Your task to perform on an android device: show emergency info Image 0: 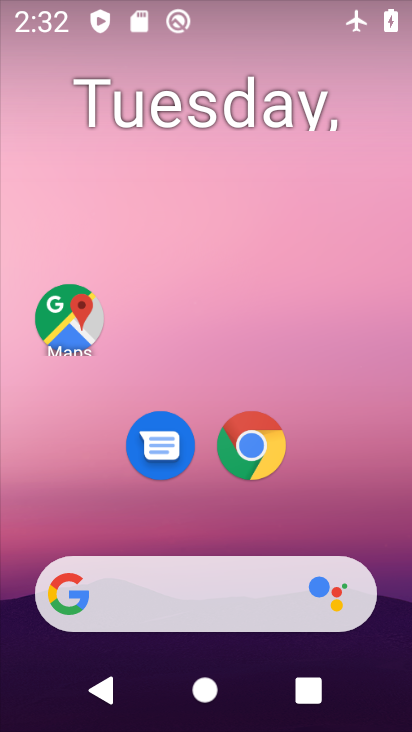
Step 0: drag from (330, 476) to (209, 153)
Your task to perform on an android device: show emergency info Image 1: 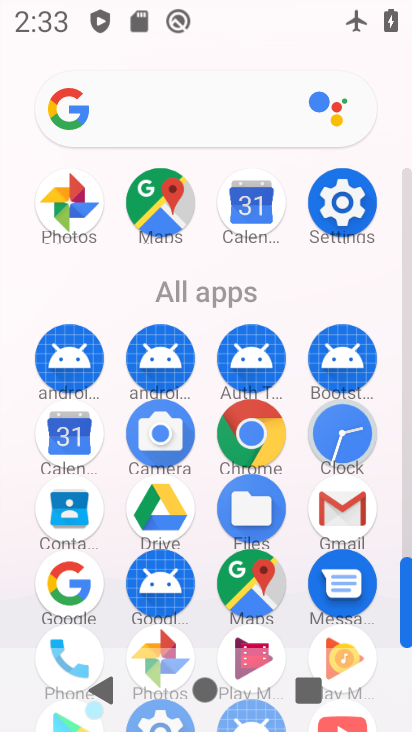
Step 1: click (342, 218)
Your task to perform on an android device: show emergency info Image 2: 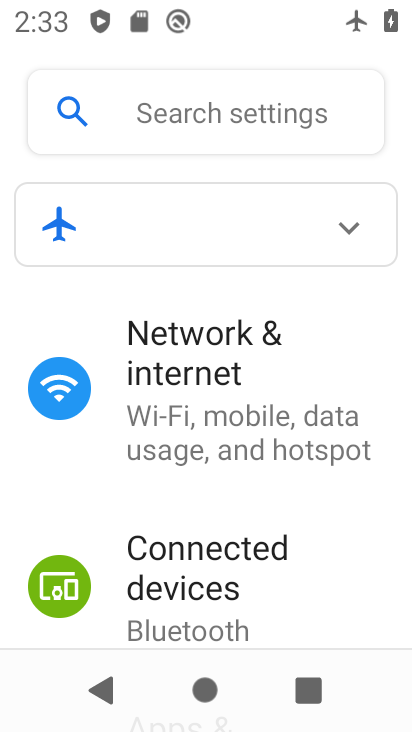
Step 2: drag from (248, 610) to (216, 238)
Your task to perform on an android device: show emergency info Image 3: 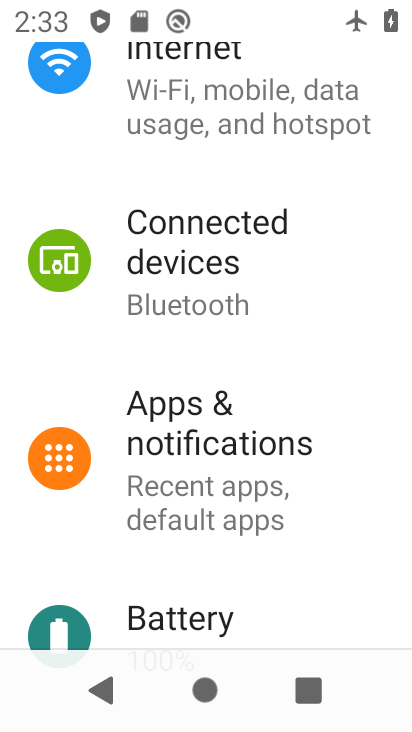
Step 3: drag from (281, 605) to (290, 187)
Your task to perform on an android device: show emergency info Image 4: 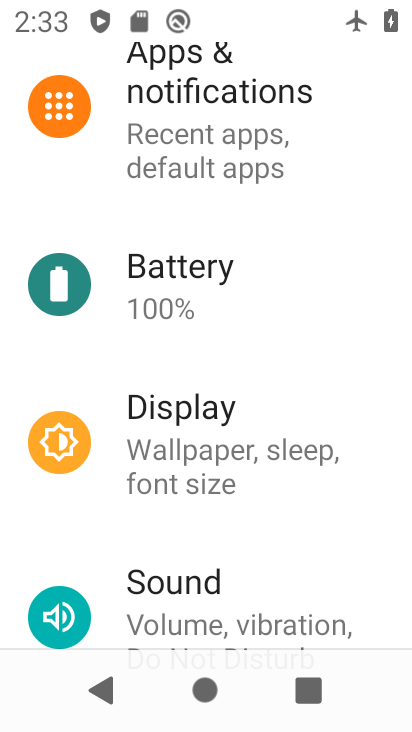
Step 4: drag from (282, 613) to (264, 193)
Your task to perform on an android device: show emergency info Image 5: 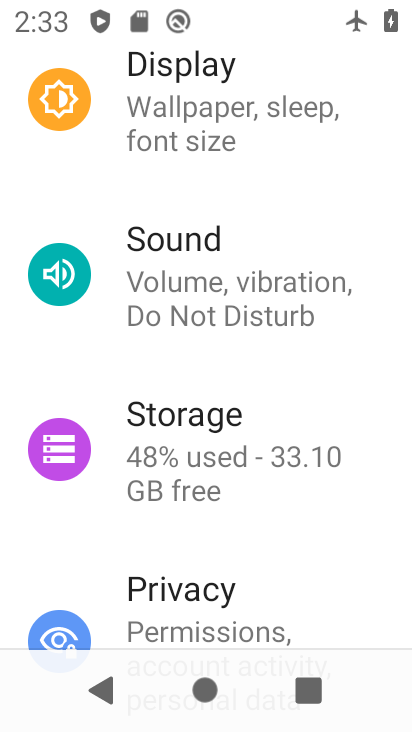
Step 5: drag from (264, 574) to (245, 287)
Your task to perform on an android device: show emergency info Image 6: 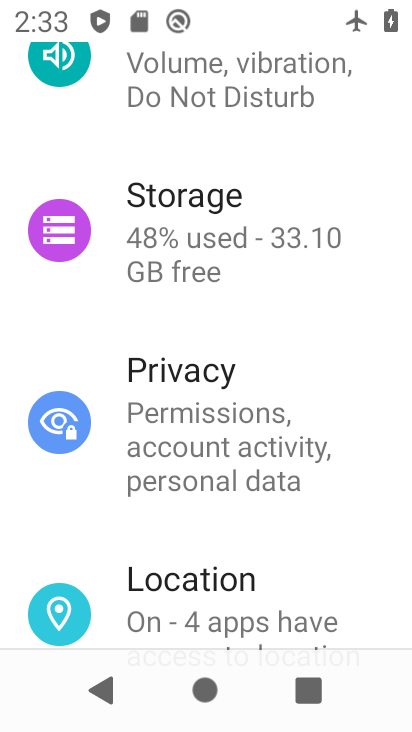
Step 6: drag from (225, 613) to (255, 102)
Your task to perform on an android device: show emergency info Image 7: 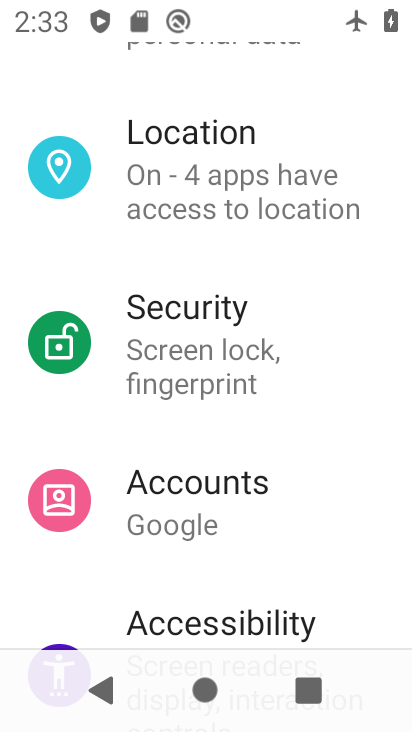
Step 7: drag from (256, 610) to (284, 141)
Your task to perform on an android device: show emergency info Image 8: 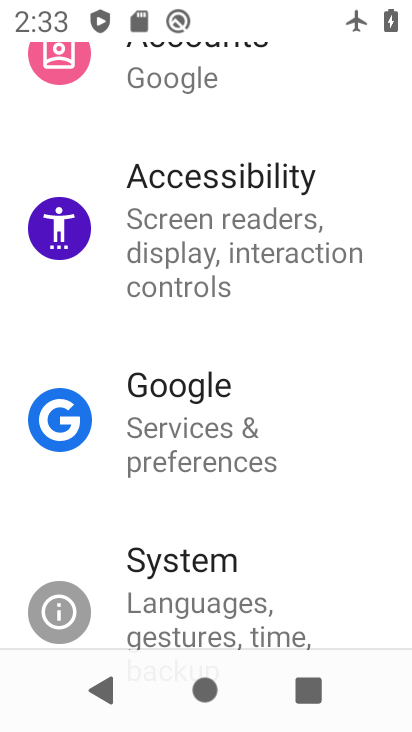
Step 8: drag from (259, 607) to (304, 113)
Your task to perform on an android device: show emergency info Image 9: 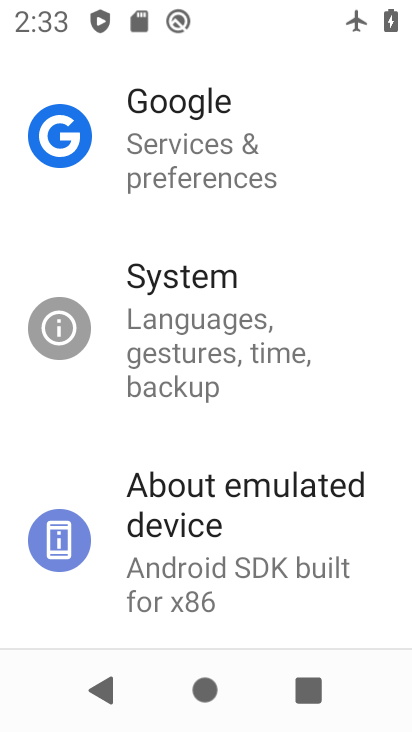
Step 9: click (199, 547)
Your task to perform on an android device: show emergency info Image 10: 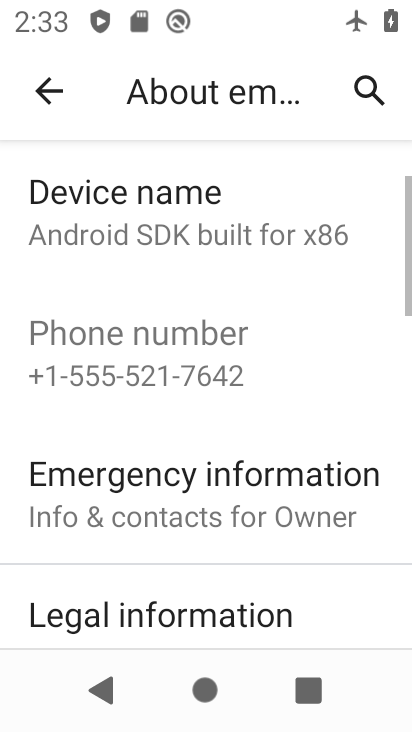
Step 10: click (192, 508)
Your task to perform on an android device: show emergency info Image 11: 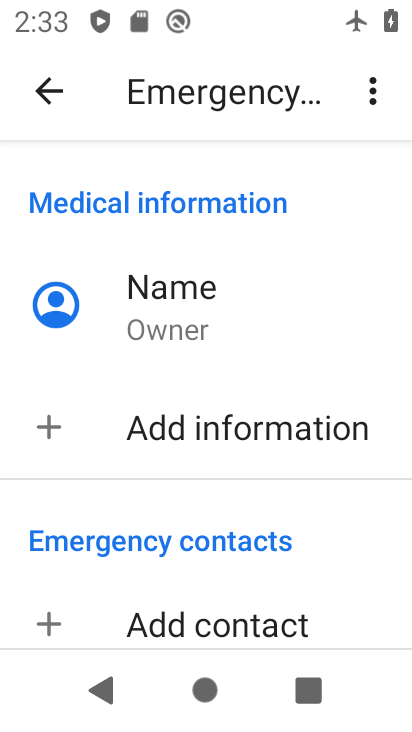
Step 11: task complete